Your task to perform on an android device: visit the assistant section in the google photos Image 0: 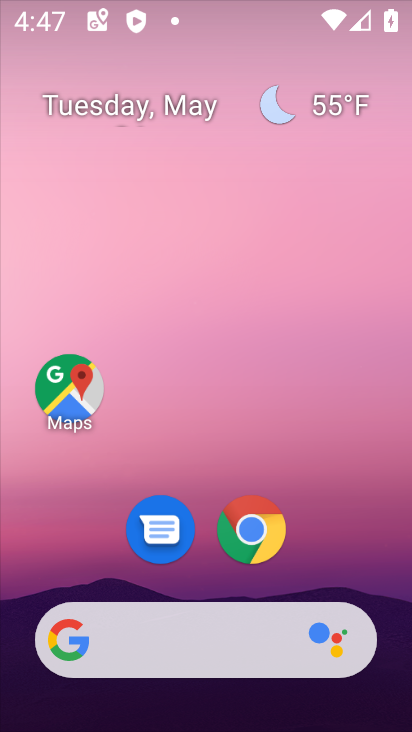
Step 0: click (407, 659)
Your task to perform on an android device: visit the assistant section in the google photos Image 1: 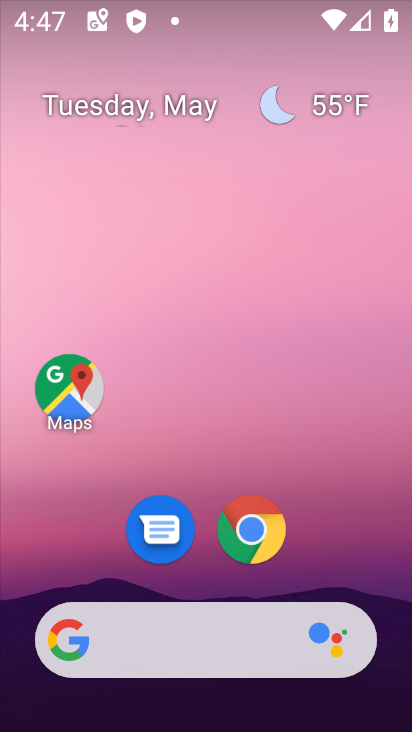
Step 1: drag from (246, 606) to (135, 209)
Your task to perform on an android device: visit the assistant section in the google photos Image 2: 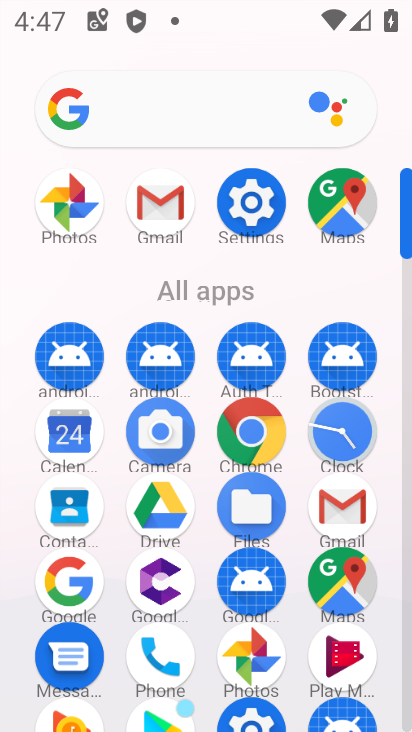
Step 2: click (254, 660)
Your task to perform on an android device: visit the assistant section in the google photos Image 3: 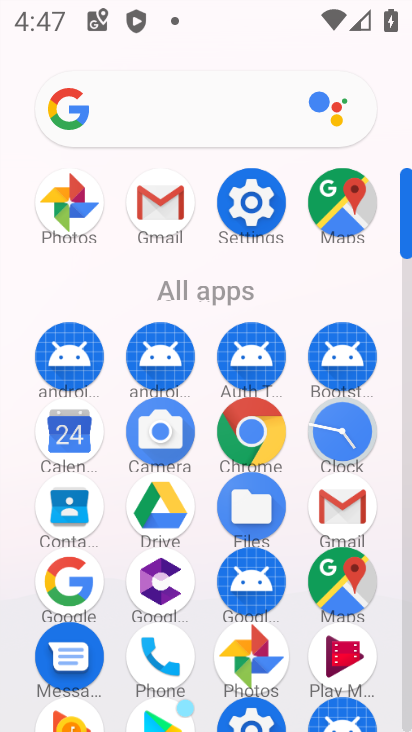
Step 3: click (254, 660)
Your task to perform on an android device: visit the assistant section in the google photos Image 4: 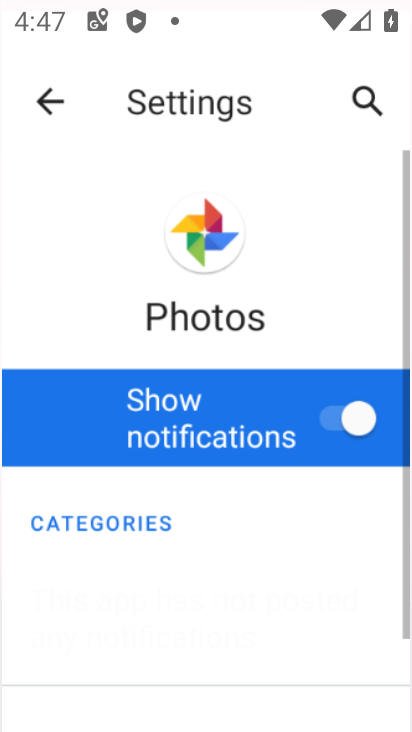
Step 4: click (254, 660)
Your task to perform on an android device: visit the assistant section in the google photos Image 5: 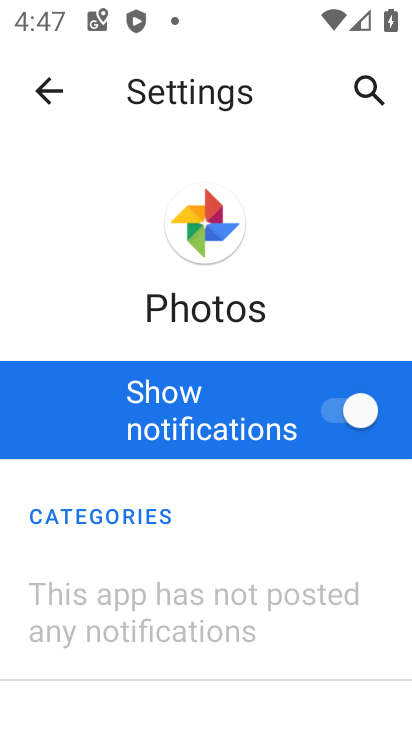
Step 5: drag from (206, 587) to (182, 328)
Your task to perform on an android device: visit the assistant section in the google photos Image 6: 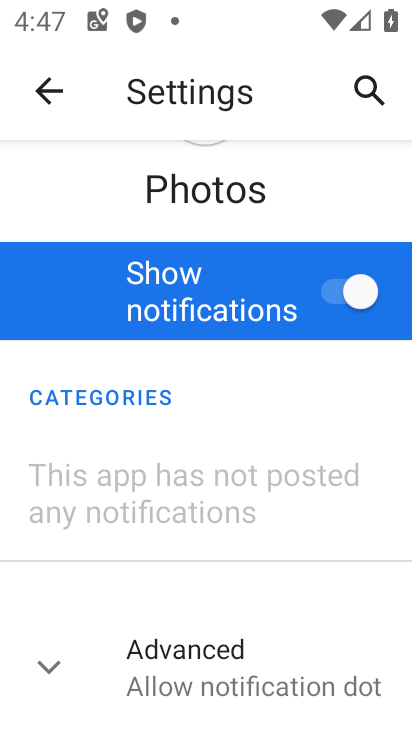
Step 6: click (45, 94)
Your task to perform on an android device: visit the assistant section in the google photos Image 7: 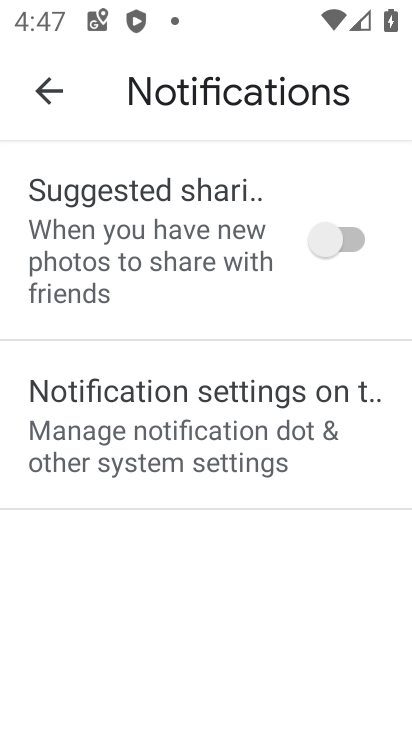
Step 7: click (44, 87)
Your task to perform on an android device: visit the assistant section in the google photos Image 8: 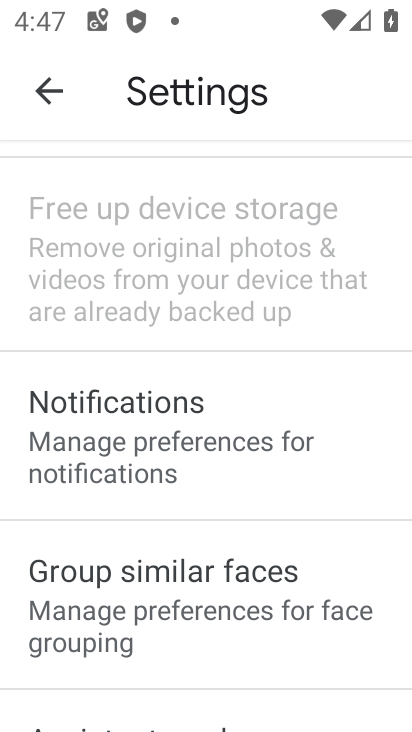
Step 8: click (50, 97)
Your task to perform on an android device: visit the assistant section in the google photos Image 9: 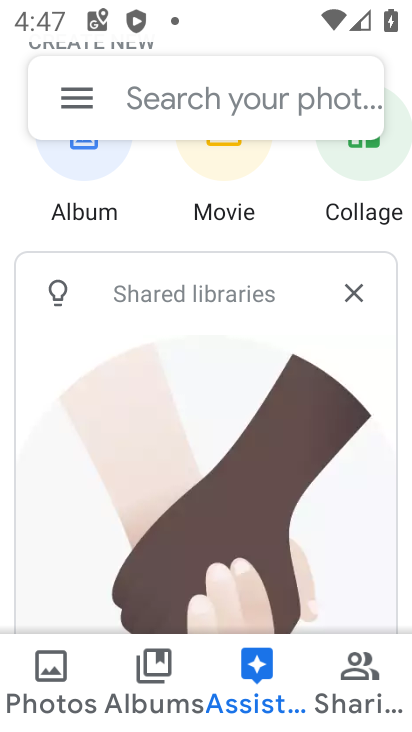
Step 9: task complete